Your task to perform on an android device: check data usage Image 0: 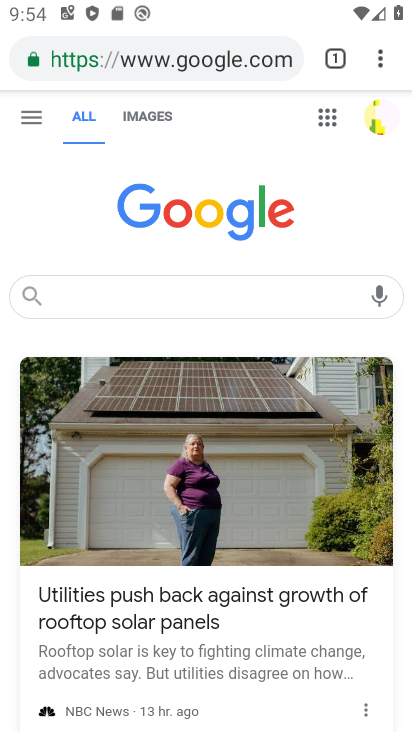
Step 0: press back button
Your task to perform on an android device: check data usage Image 1: 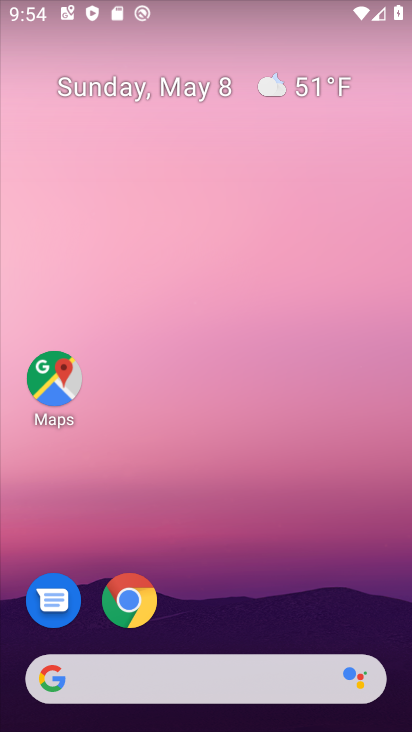
Step 1: drag from (263, 608) to (258, 33)
Your task to perform on an android device: check data usage Image 2: 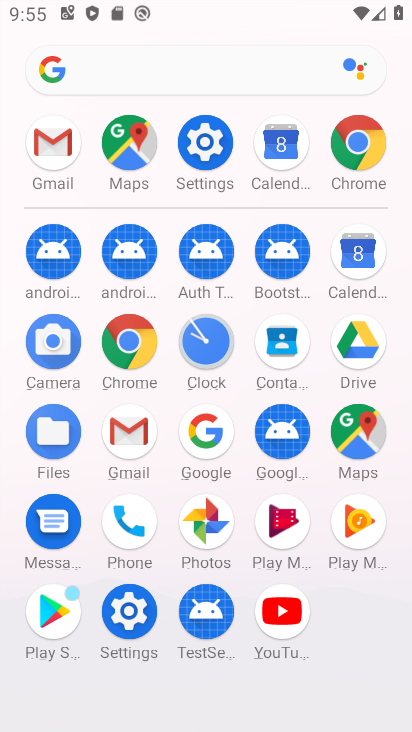
Step 2: click (203, 137)
Your task to perform on an android device: check data usage Image 3: 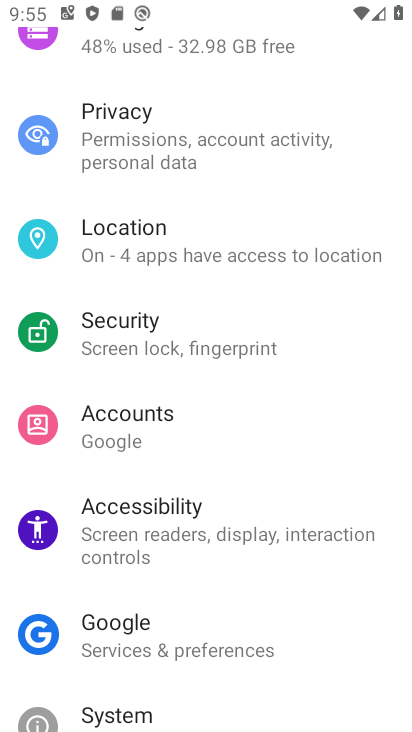
Step 3: drag from (234, 123) to (269, 556)
Your task to perform on an android device: check data usage Image 4: 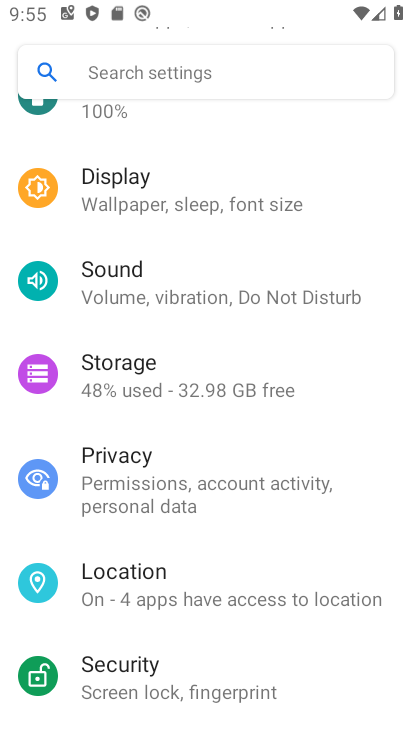
Step 4: drag from (327, 223) to (311, 633)
Your task to perform on an android device: check data usage Image 5: 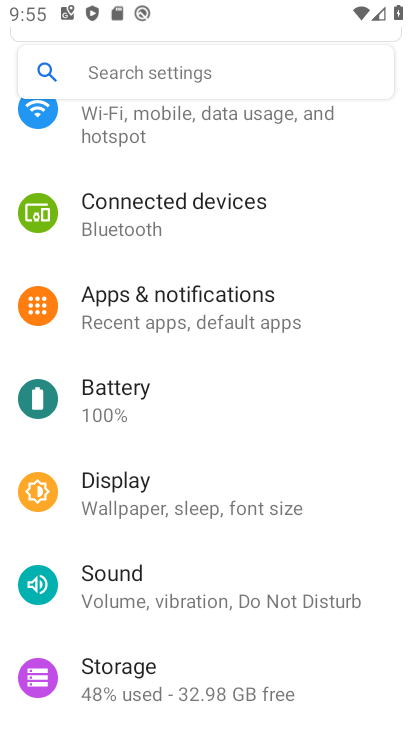
Step 5: drag from (285, 211) to (272, 618)
Your task to perform on an android device: check data usage Image 6: 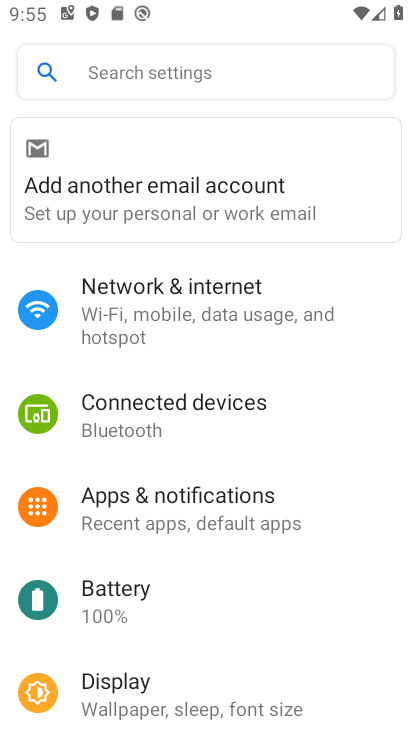
Step 6: click (266, 296)
Your task to perform on an android device: check data usage Image 7: 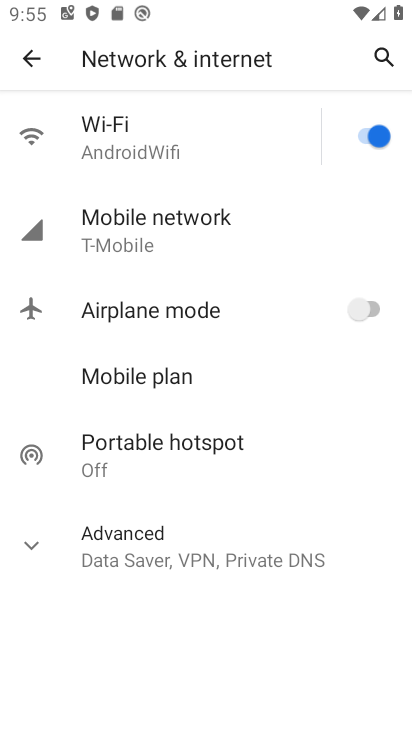
Step 7: click (190, 228)
Your task to perform on an android device: check data usage Image 8: 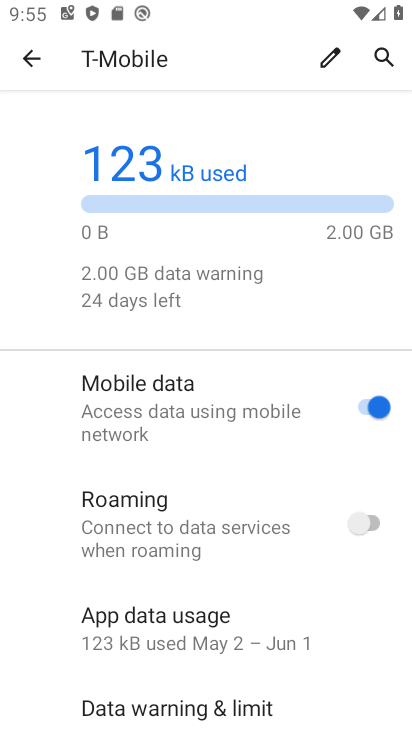
Step 8: task complete